Your task to perform on an android device: Open ESPN.com Image 0: 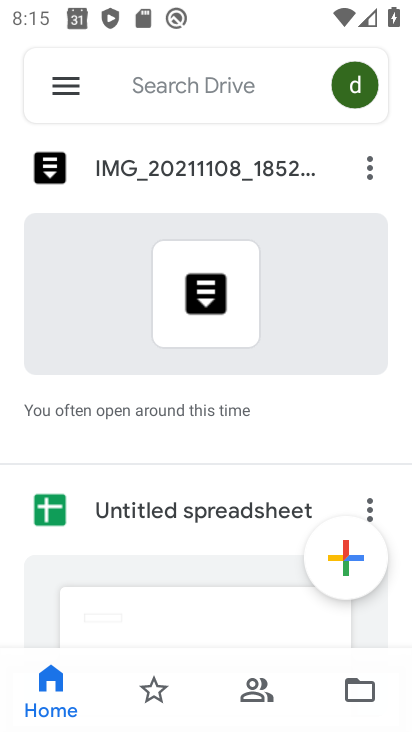
Step 0: press back button
Your task to perform on an android device: Open ESPN.com Image 1: 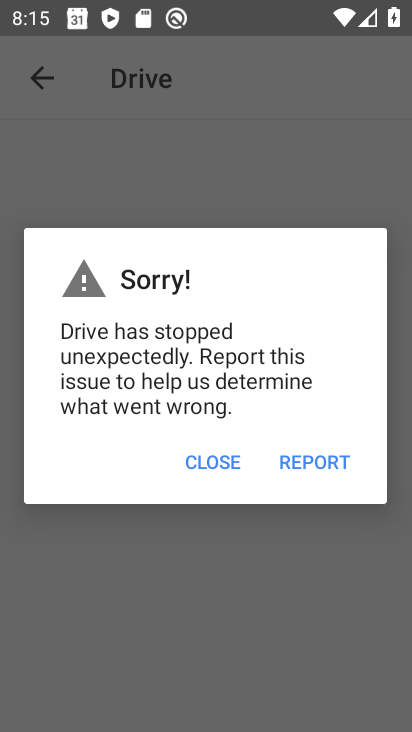
Step 1: press home button
Your task to perform on an android device: Open ESPN.com Image 2: 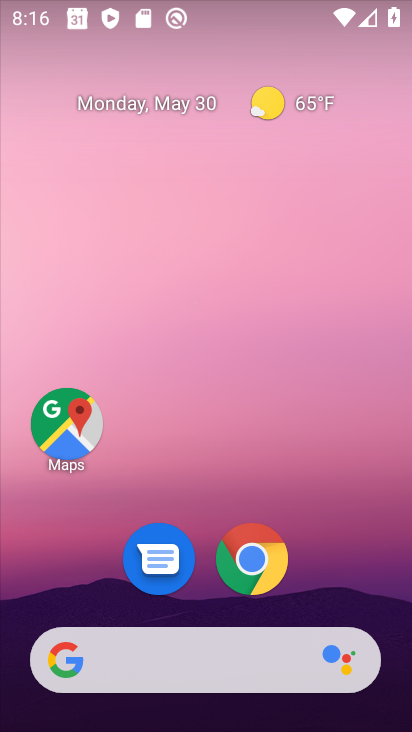
Step 2: click (249, 565)
Your task to perform on an android device: Open ESPN.com Image 3: 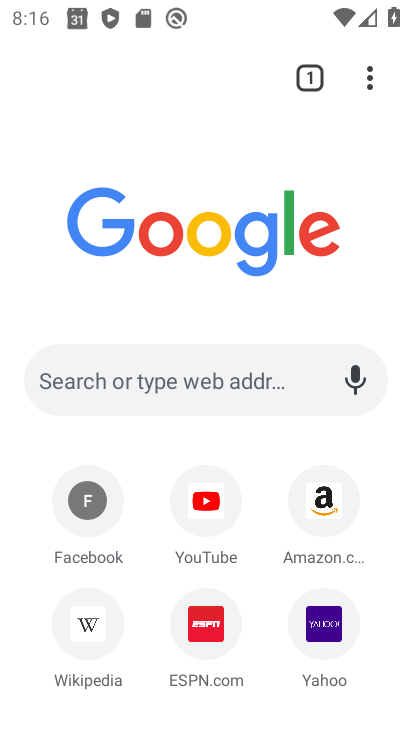
Step 3: click (196, 614)
Your task to perform on an android device: Open ESPN.com Image 4: 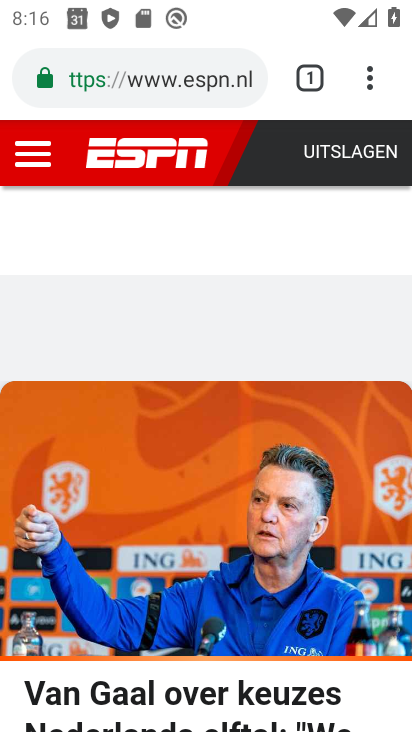
Step 4: task complete